Your task to perform on an android device: toggle location history Image 0: 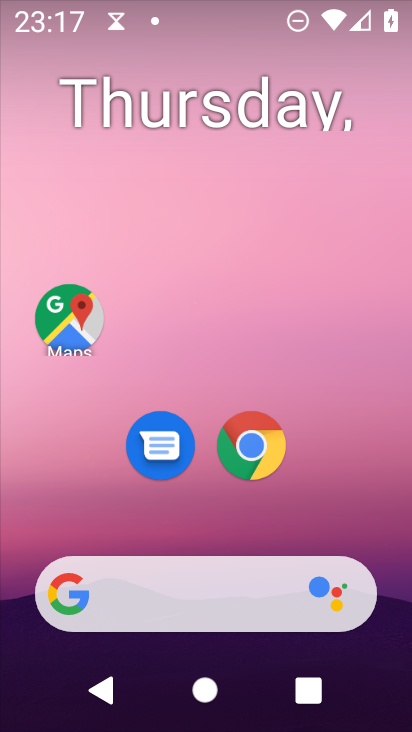
Step 0: drag from (238, 693) to (248, 61)
Your task to perform on an android device: toggle location history Image 1: 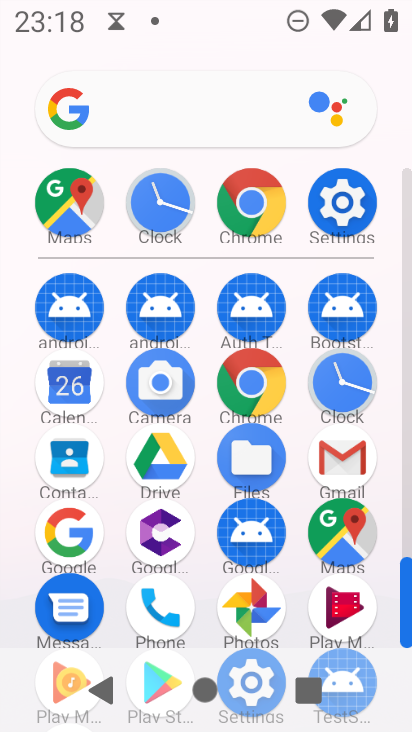
Step 1: click (340, 210)
Your task to perform on an android device: toggle location history Image 2: 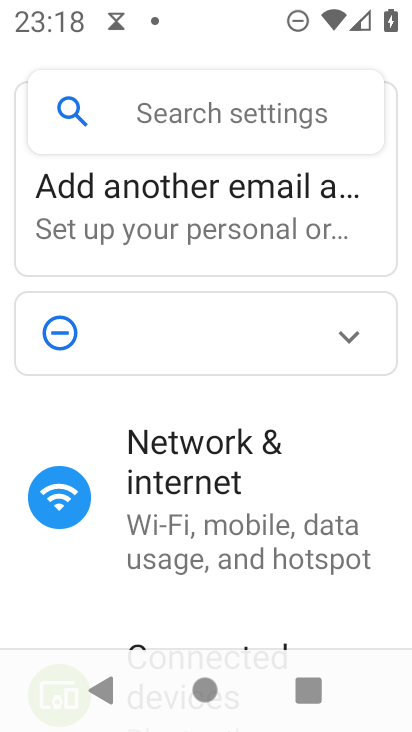
Step 2: drag from (247, 623) to (256, 175)
Your task to perform on an android device: toggle location history Image 3: 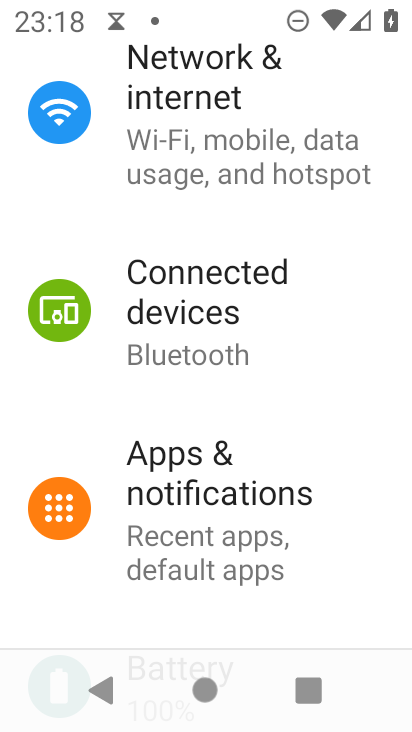
Step 3: drag from (196, 571) to (200, 174)
Your task to perform on an android device: toggle location history Image 4: 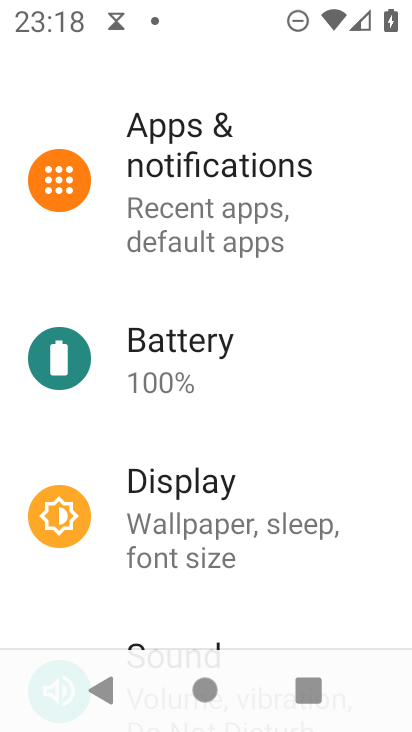
Step 4: drag from (180, 618) to (192, 77)
Your task to perform on an android device: toggle location history Image 5: 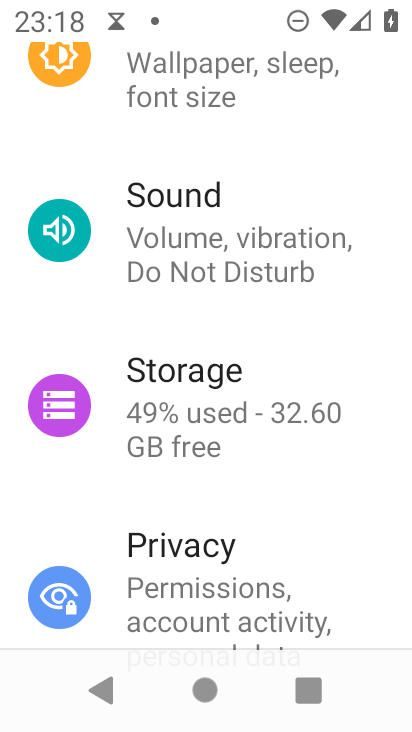
Step 5: drag from (183, 610) to (199, 194)
Your task to perform on an android device: toggle location history Image 6: 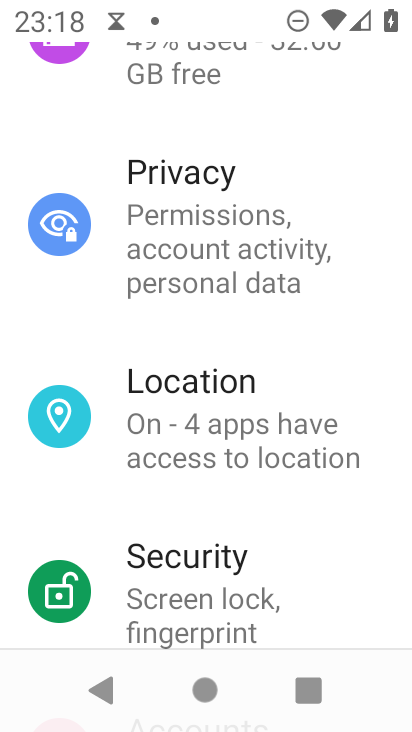
Step 6: click (183, 429)
Your task to perform on an android device: toggle location history Image 7: 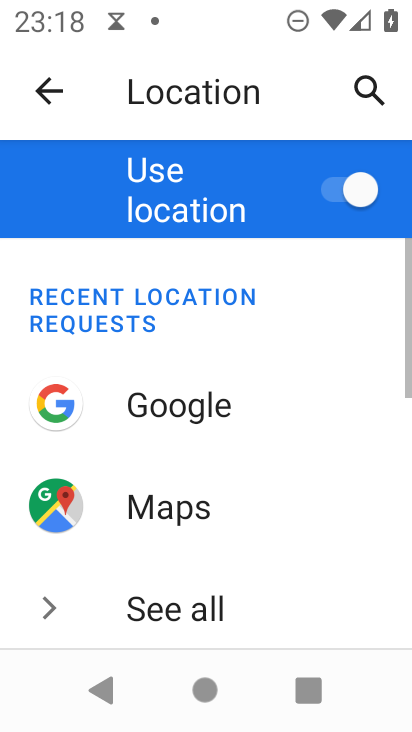
Step 7: drag from (254, 637) to (264, 215)
Your task to perform on an android device: toggle location history Image 8: 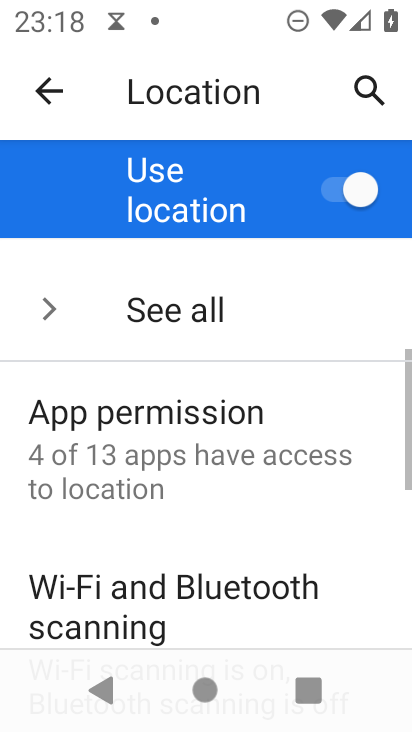
Step 8: drag from (337, 632) to (317, 268)
Your task to perform on an android device: toggle location history Image 9: 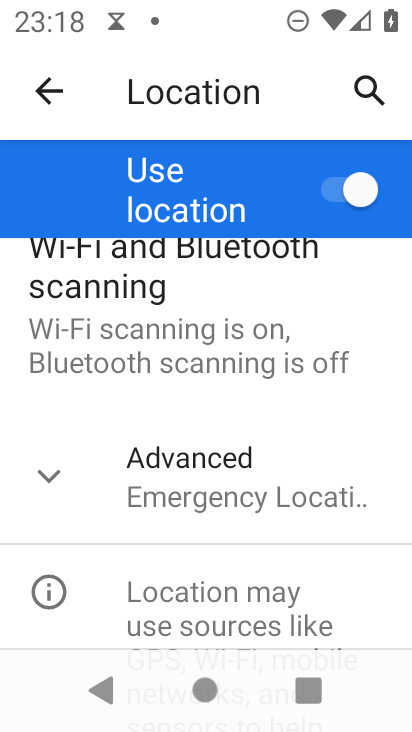
Step 9: click (160, 481)
Your task to perform on an android device: toggle location history Image 10: 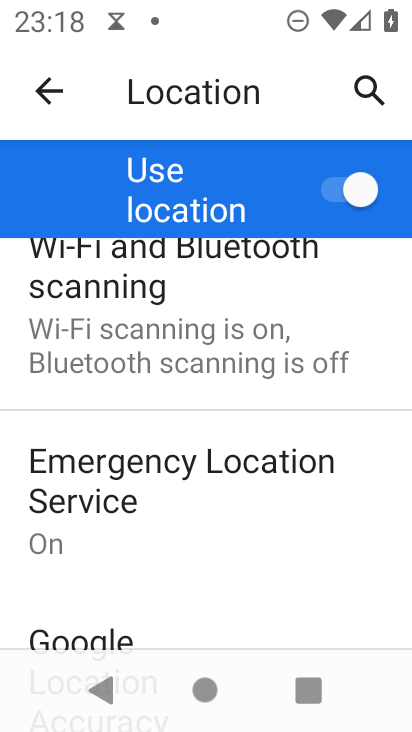
Step 10: drag from (236, 630) to (232, 254)
Your task to perform on an android device: toggle location history Image 11: 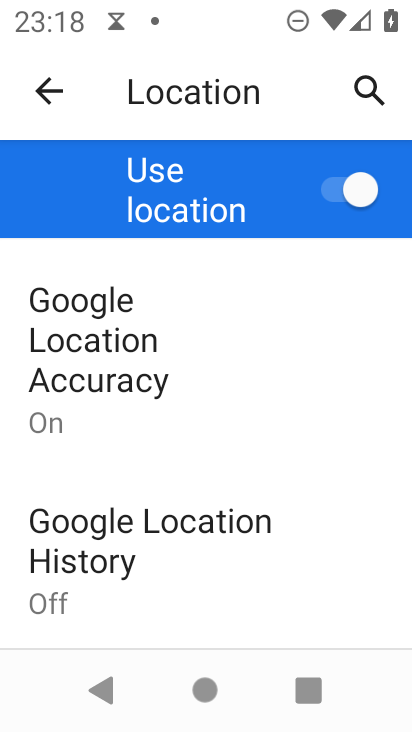
Step 11: click (139, 527)
Your task to perform on an android device: toggle location history Image 12: 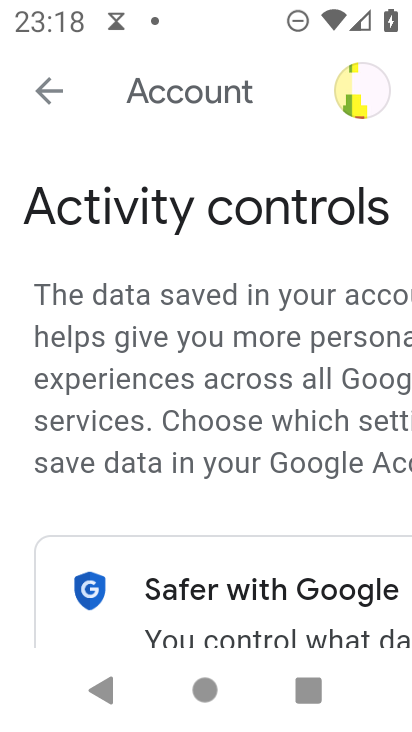
Step 12: drag from (271, 643) to (271, 165)
Your task to perform on an android device: toggle location history Image 13: 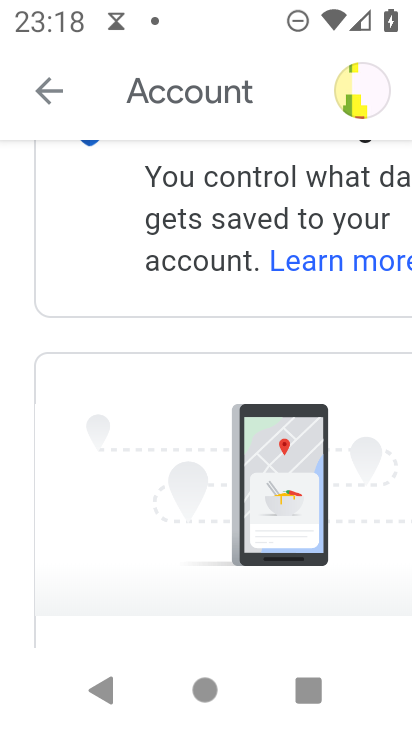
Step 13: drag from (263, 614) to (261, 207)
Your task to perform on an android device: toggle location history Image 14: 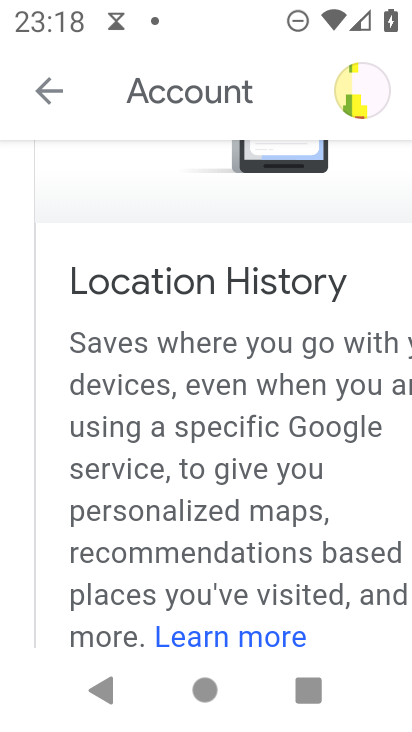
Step 14: drag from (258, 624) to (252, 210)
Your task to perform on an android device: toggle location history Image 15: 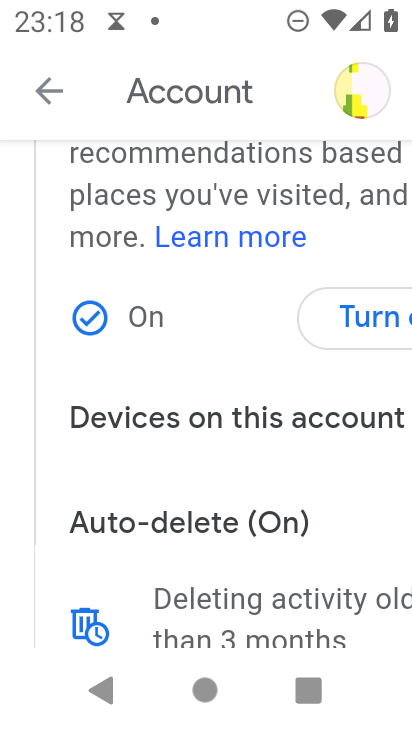
Step 15: click (365, 321)
Your task to perform on an android device: toggle location history Image 16: 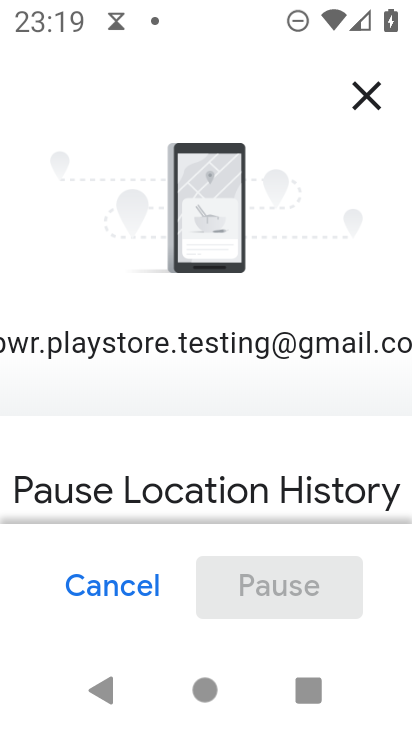
Step 16: drag from (250, 492) to (259, 32)
Your task to perform on an android device: toggle location history Image 17: 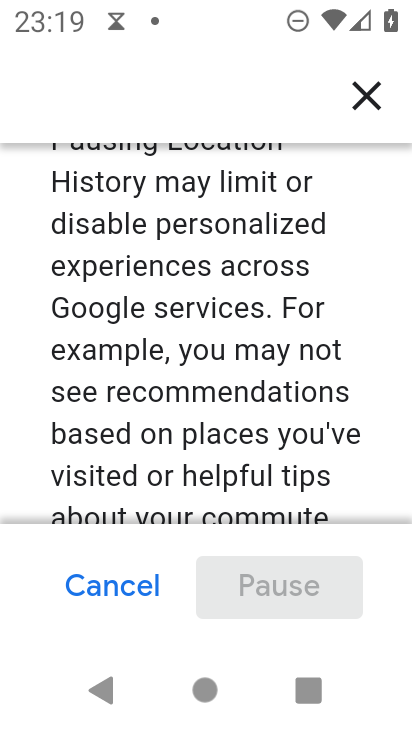
Step 17: drag from (349, 504) to (350, 182)
Your task to perform on an android device: toggle location history Image 18: 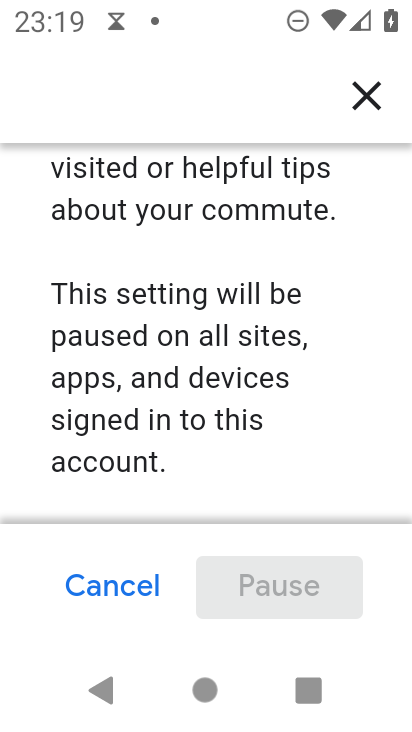
Step 18: drag from (209, 502) to (254, 150)
Your task to perform on an android device: toggle location history Image 19: 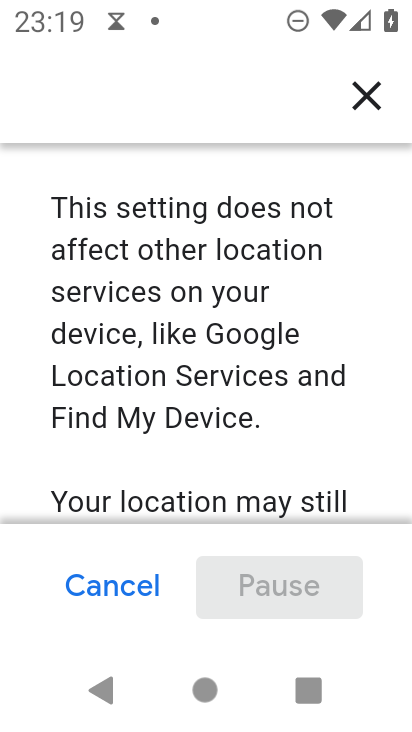
Step 19: drag from (313, 503) to (310, 171)
Your task to perform on an android device: toggle location history Image 20: 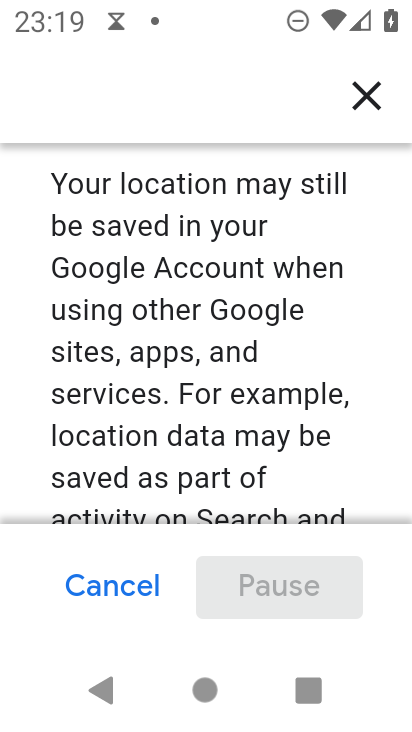
Step 20: drag from (307, 506) to (292, 123)
Your task to perform on an android device: toggle location history Image 21: 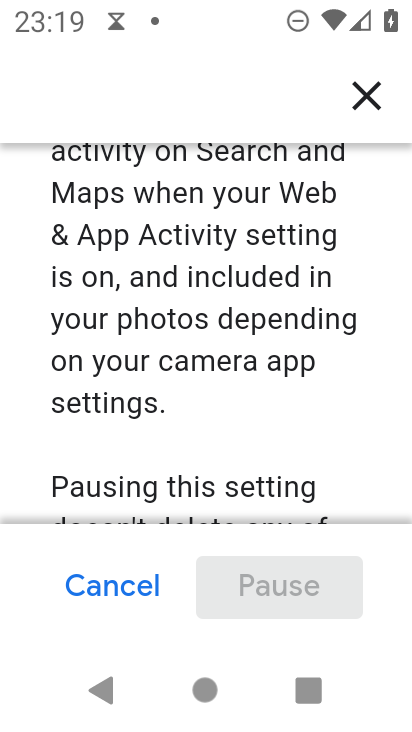
Step 21: drag from (307, 509) to (308, 140)
Your task to perform on an android device: toggle location history Image 22: 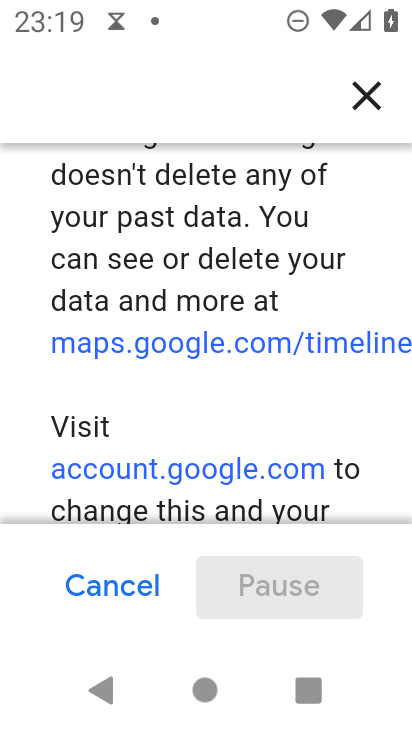
Step 22: drag from (298, 504) to (292, 111)
Your task to perform on an android device: toggle location history Image 23: 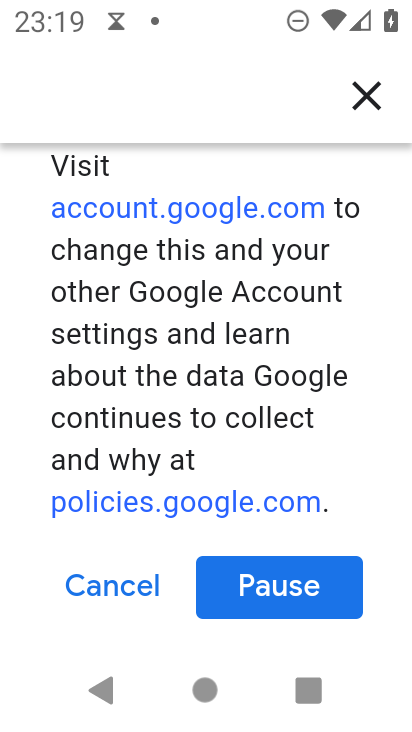
Step 23: click (299, 601)
Your task to perform on an android device: toggle location history Image 24: 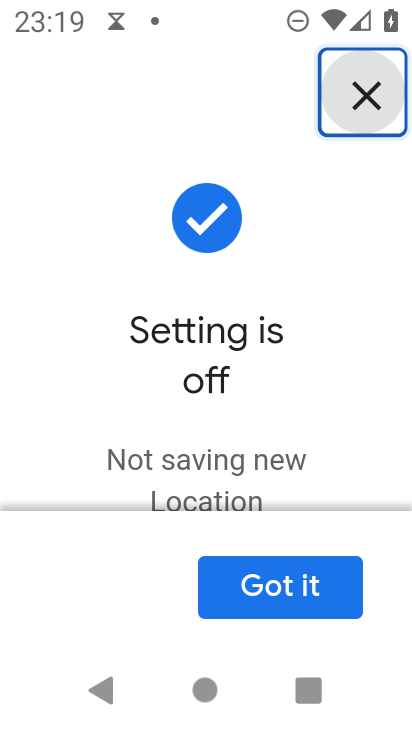
Step 24: task complete